Your task to perform on an android device: Open Maps and search for coffee Image 0: 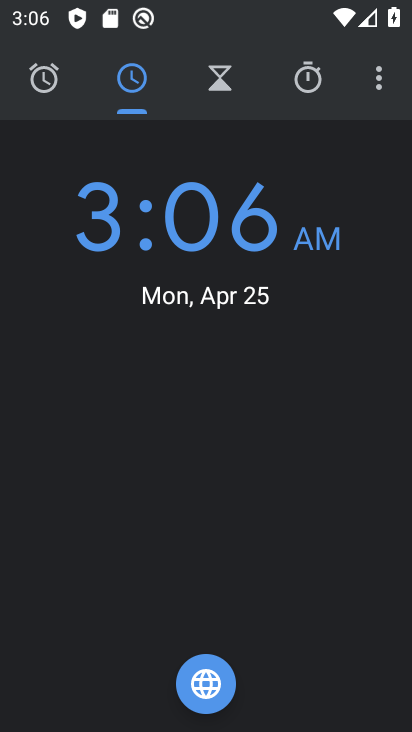
Step 0: press home button
Your task to perform on an android device: Open Maps and search for coffee Image 1: 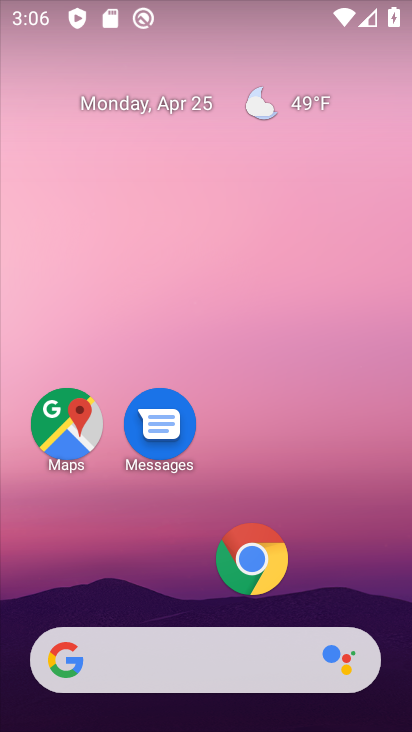
Step 1: click (61, 424)
Your task to perform on an android device: Open Maps and search for coffee Image 2: 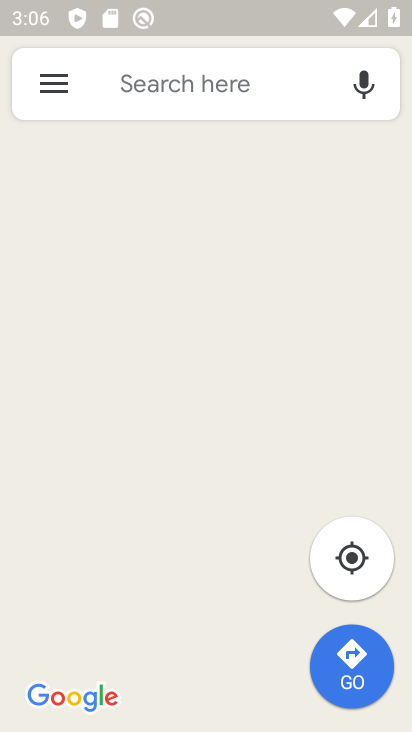
Step 2: click (223, 76)
Your task to perform on an android device: Open Maps and search for coffee Image 3: 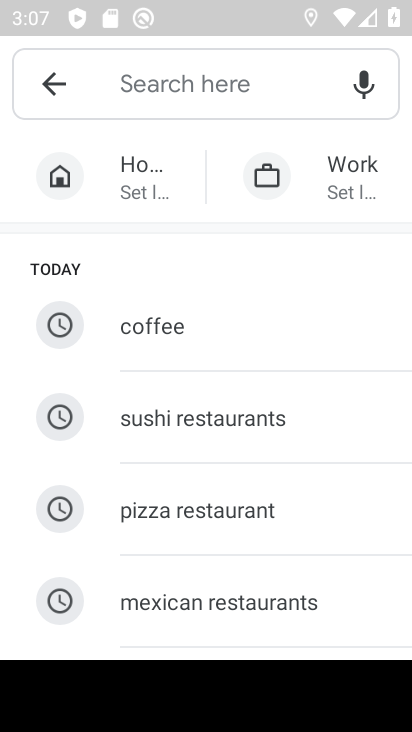
Step 3: type "coff"
Your task to perform on an android device: Open Maps and search for coffee Image 4: 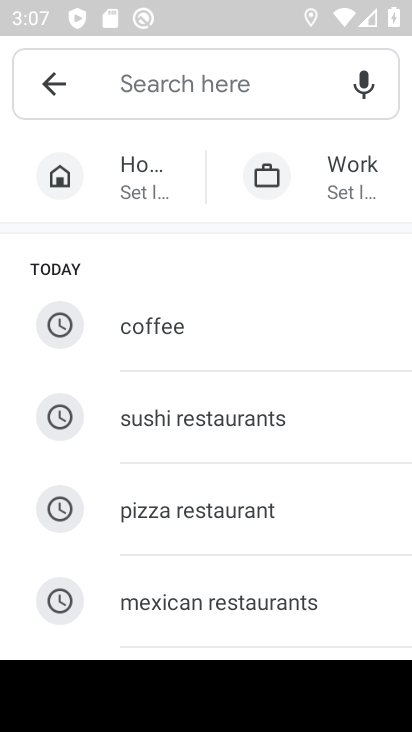
Step 4: click (189, 334)
Your task to perform on an android device: Open Maps and search for coffee Image 5: 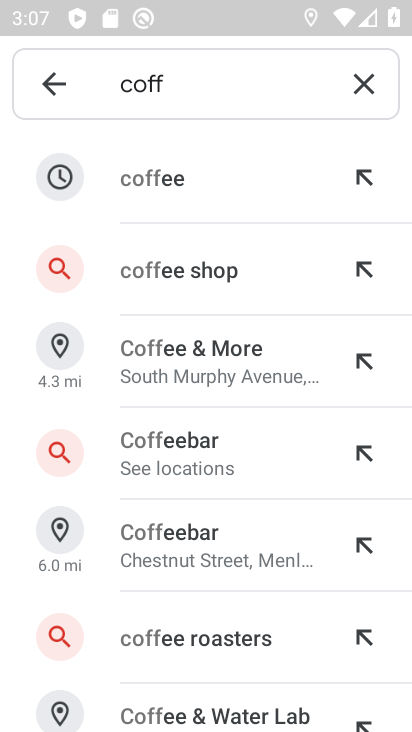
Step 5: click (177, 178)
Your task to perform on an android device: Open Maps and search for coffee Image 6: 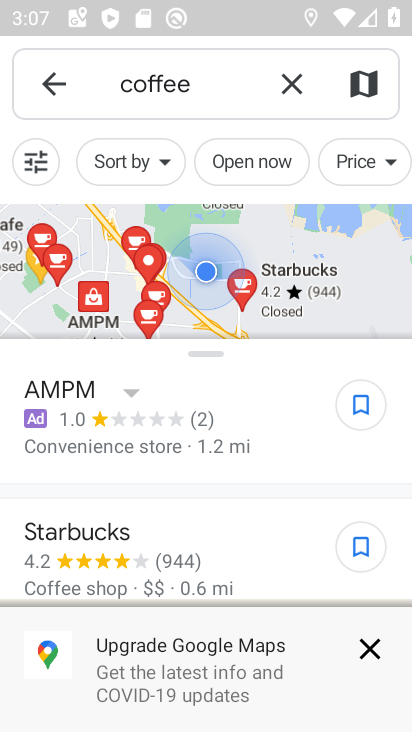
Step 6: task complete